Your task to perform on an android device: see creations saved in the google photos Image 0: 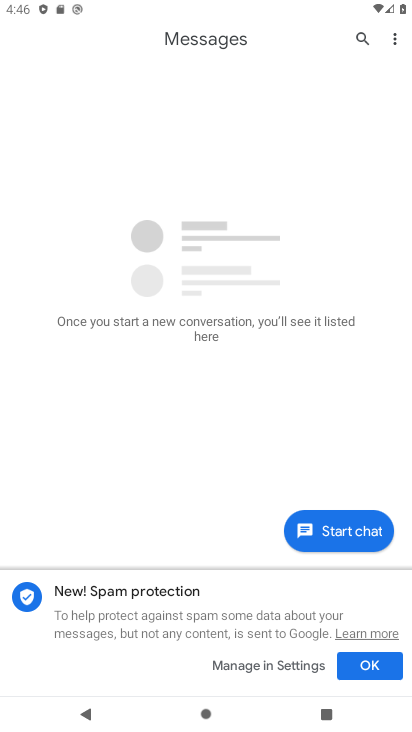
Step 0: press home button
Your task to perform on an android device: see creations saved in the google photos Image 1: 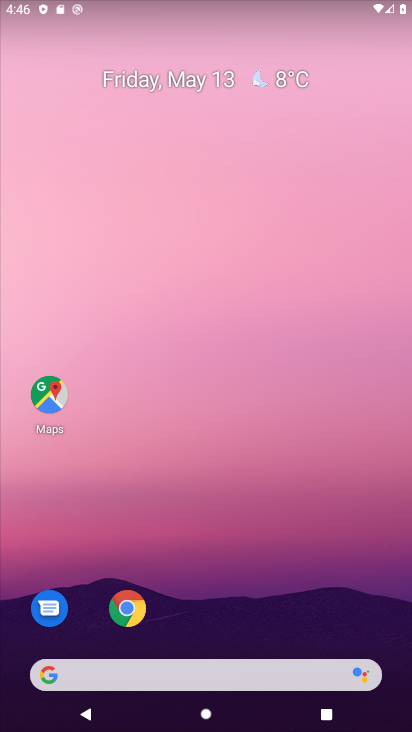
Step 1: drag from (221, 589) to (222, 93)
Your task to perform on an android device: see creations saved in the google photos Image 2: 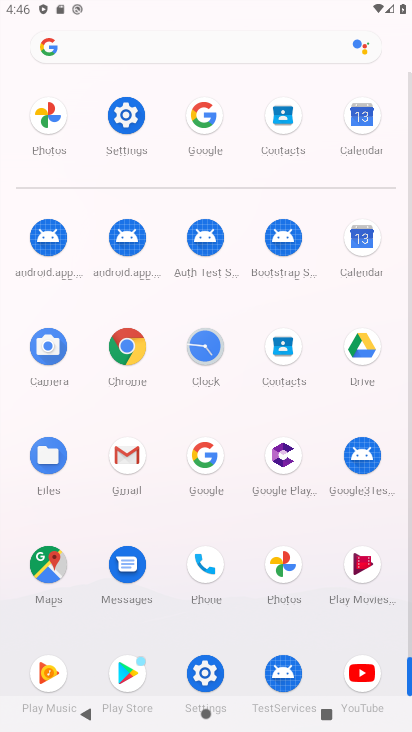
Step 2: click (48, 116)
Your task to perform on an android device: see creations saved in the google photos Image 3: 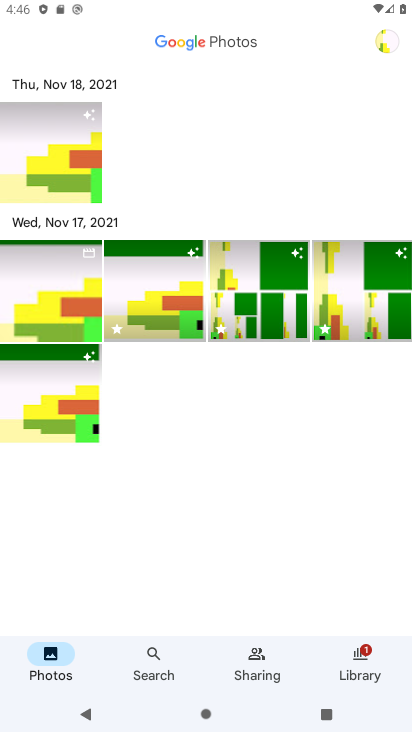
Step 3: click (249, 651)
Your task to perform on an android device: see creations saved in the google photos Image 4: 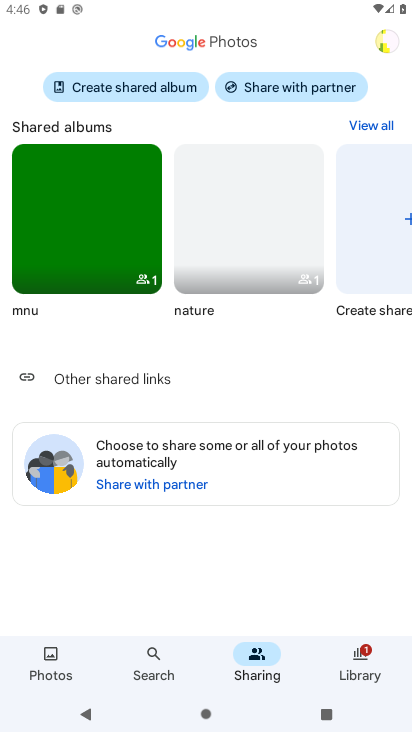
Step 4: drag from (251, 258) to (114, 269)
Your task to perform on an android device: see creations saved in the google photos Image 5: 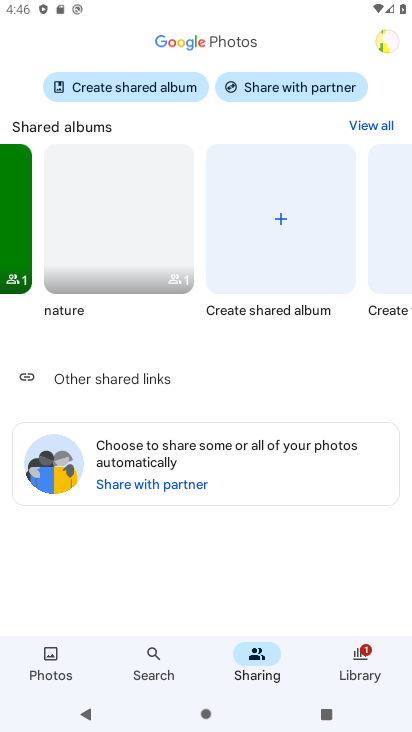
Step 5: drag from (343, 248) to (146, 282)
Your task to perform on an android device: see creations saved in the google photos Image 6: 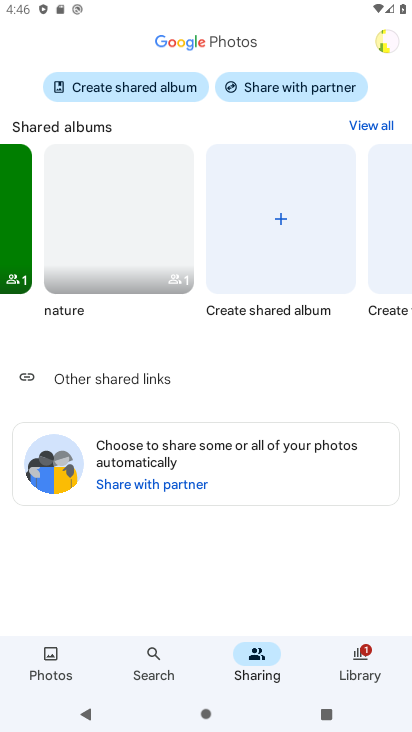
Step 6: click (162, 649)
Your task to perform on an android device: see creations saved in the google photos Image 7: 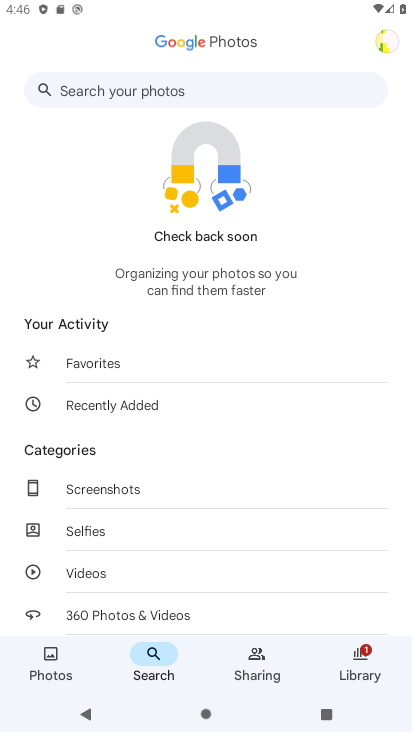
Step 7: drag from (186, 579) to (171, 341)
Your task to perform on an android device: see creations saved in the google photos Image 8: 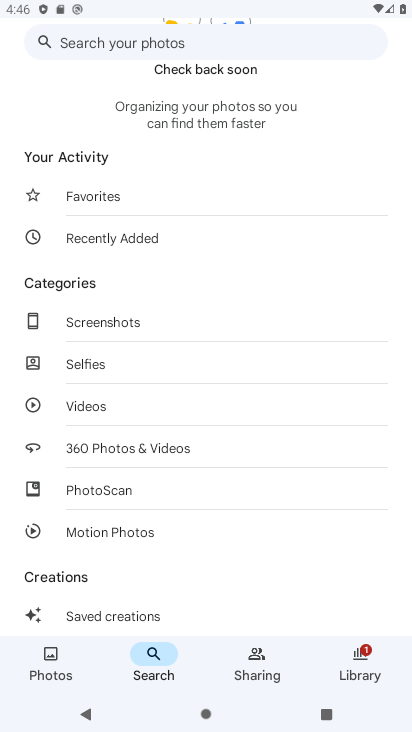
Step 8: drag from (123, 560) to (137, 396)
Your task to perform on an android device: see creations saved in the google photos Image 9: 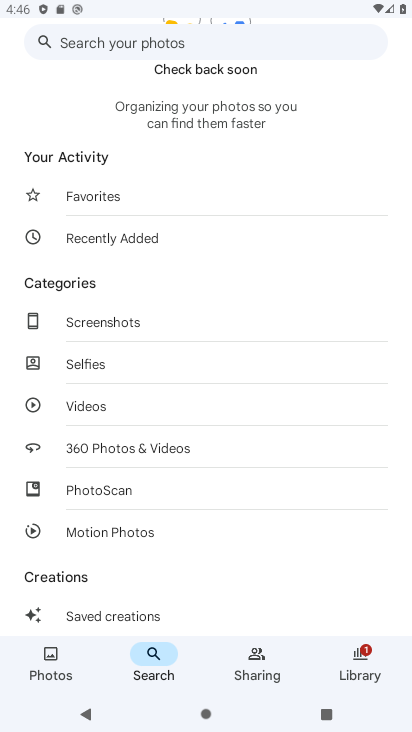
Step 9: click (84, 609)
Your task to perform on an android device: see creations saved in the google photos Image 10: 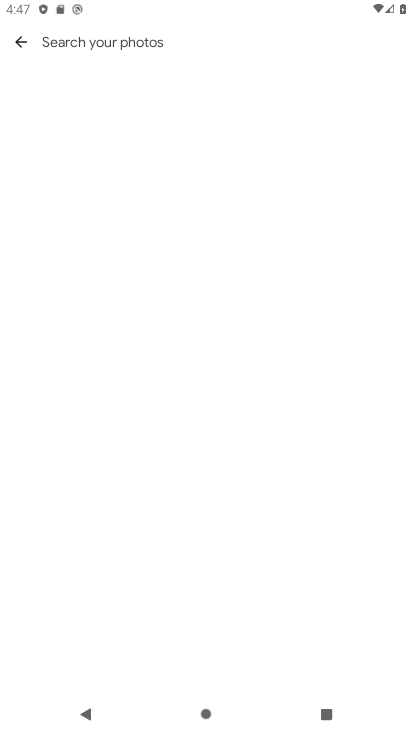
Step 10: task complete